Your task to perform on an android device: turn on javascript in the chrome app Image 0: 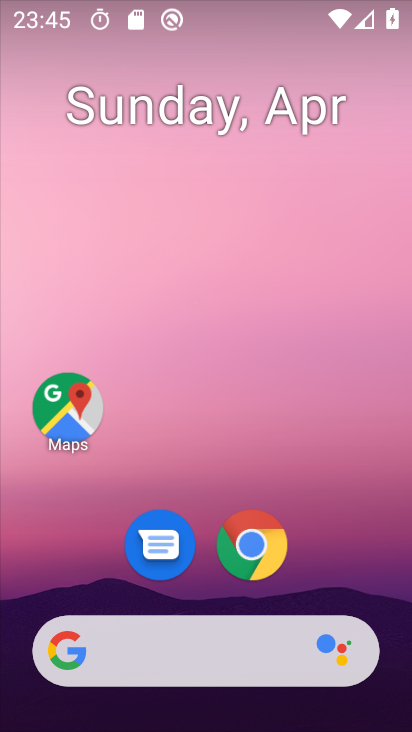
Step 0: drag from (310, 560) to (411, 118)
Your task to perform on an android device: turn on javascript in the chrome app Image 1: 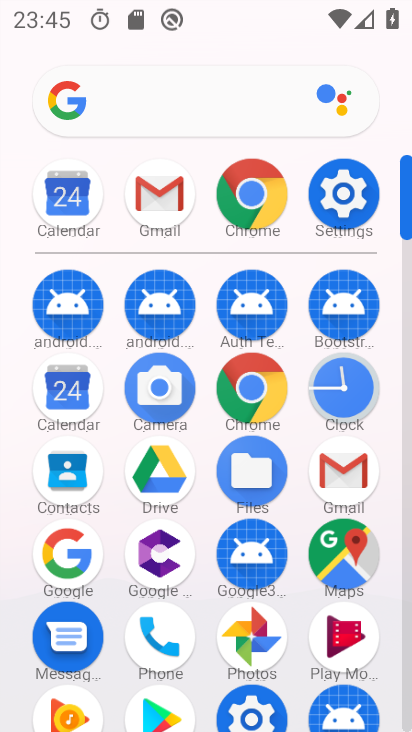
Step 1: click (227, 202)
Your task to perform on an android device: turn on javascript in the chrome app Image 2: 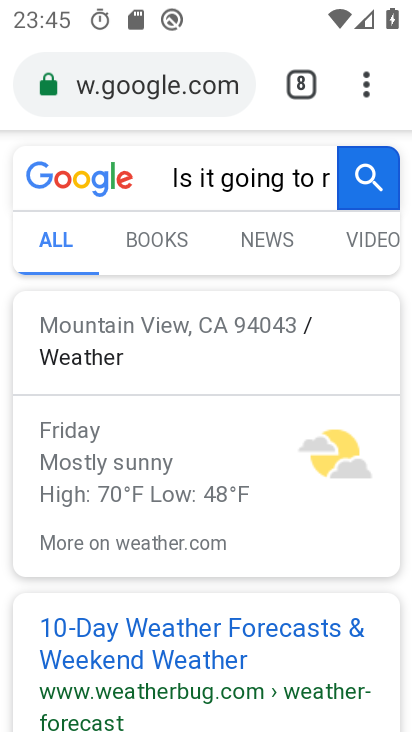
Step 2: click (395, 107)
Your task to perform on an android device: turn on javascript in the chrome app Image 3: 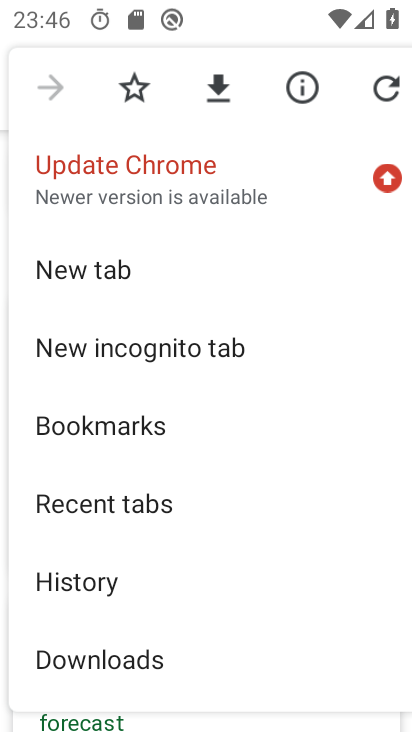
Step 3: drag from (166, 609) to (264, 146)
Your task to perform on an android device: turn on javascript in the chrome app Image 4: 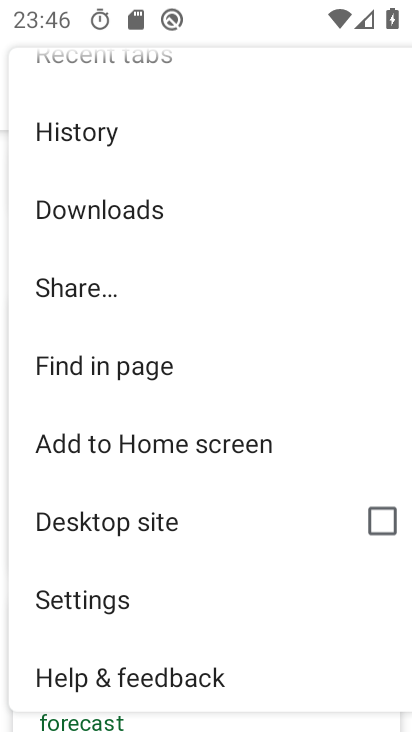
Step 4: click (140, 588)
Your task to perform on an android device: turn on javascript in the chrome app Image 5: 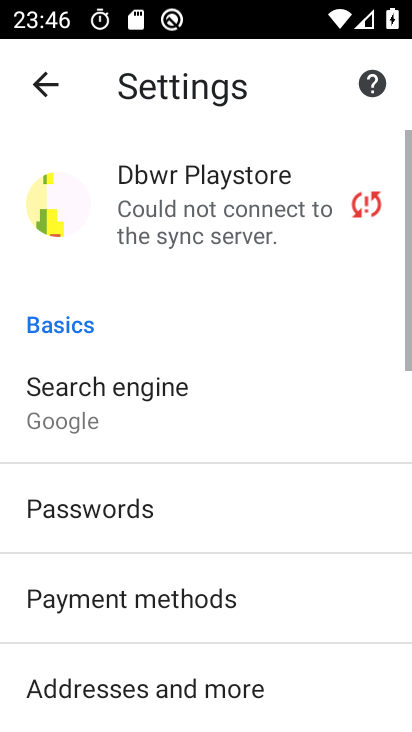
Step 5: drag from (176, 599) to (310, 193)
Your task to perform on an android device: turn on javascript in the chrome app Image 6: 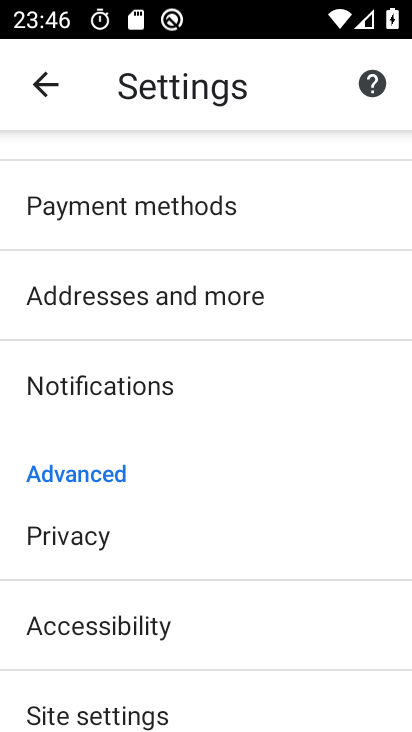
Step 6: click (124, 705)
Your task to perform on an android device: turn on javascript in the chrome app Image 7: 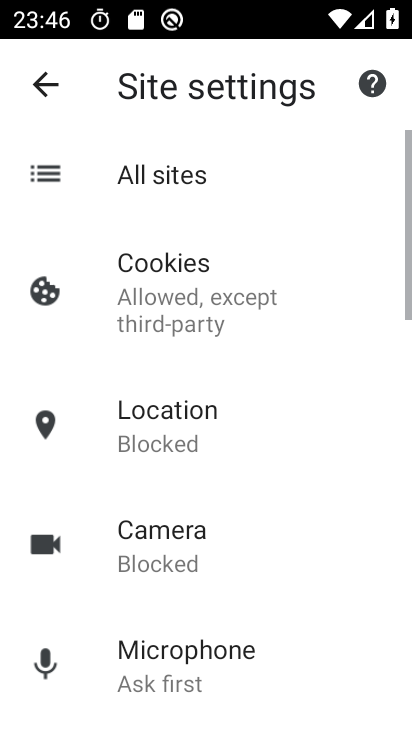
Step 7: drag from (268, 673) to (271, 190)
Your task to perform on an android device: turn on javascript in the chrome app Image 8: 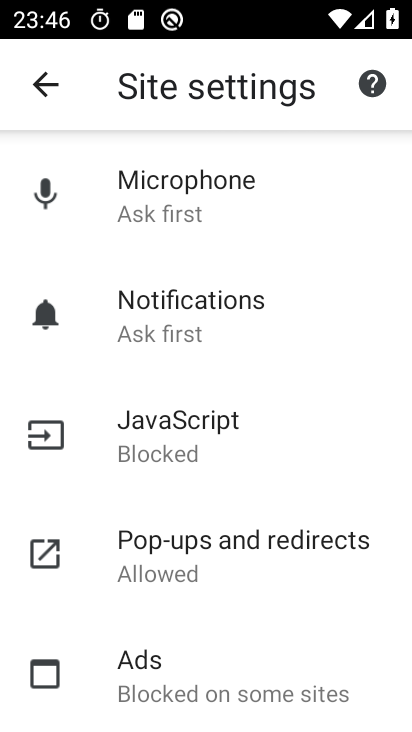
Step 8: click (149, 424)
Your task to perform on an android device: turn on javascript in the chrome app Image 9: 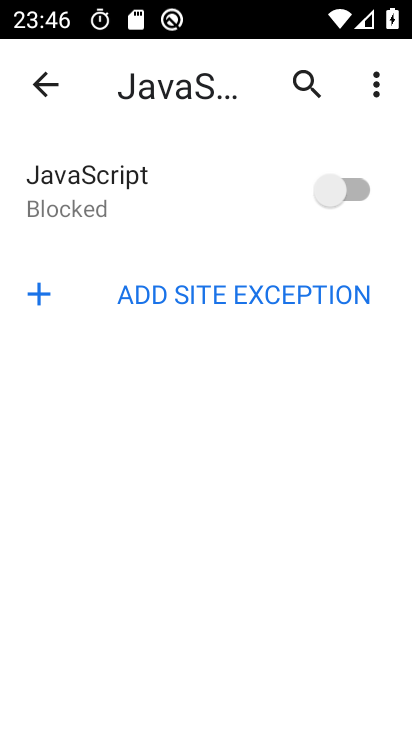
Step 9: click (343, 194)
Your task to perform on an android device: turn on javascript in the chrome app Image 10: 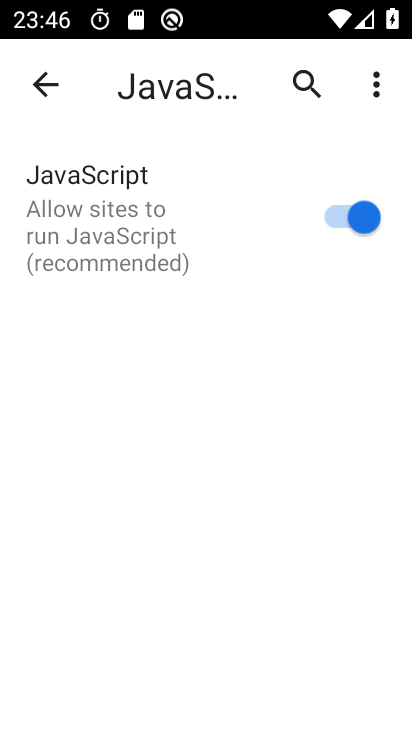
Step 10: task complete